Your task to perform on an android device: turn on translation in the chrome app Image 0: 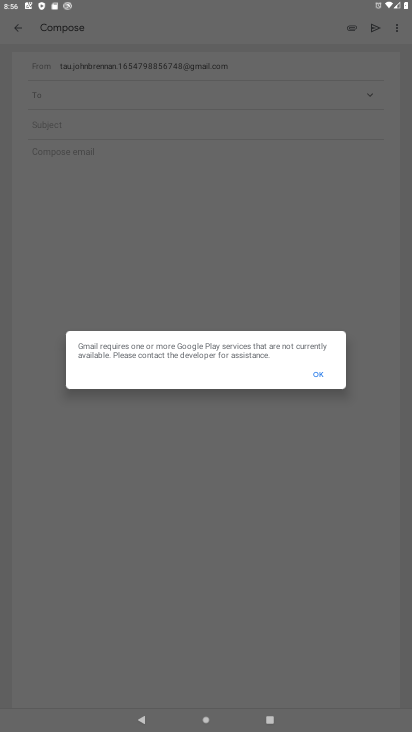
Step 0: press home button
Your task to perform on an android device: turn on translation in the chrome app Image 1: 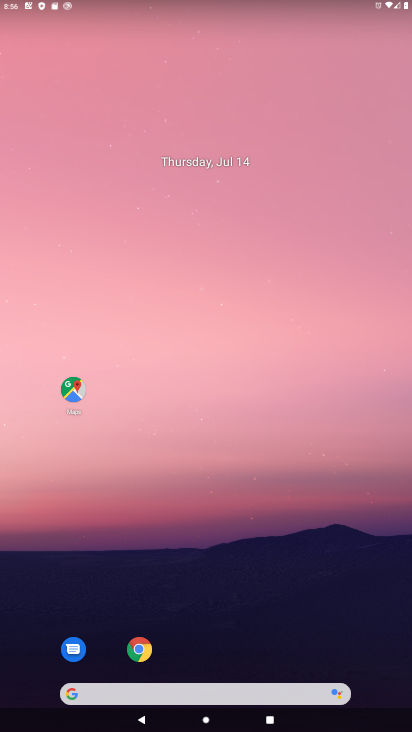
Step 1: click (143, 654)
Your task to perform on an android device: turn on translation in the chrome app Image 2: 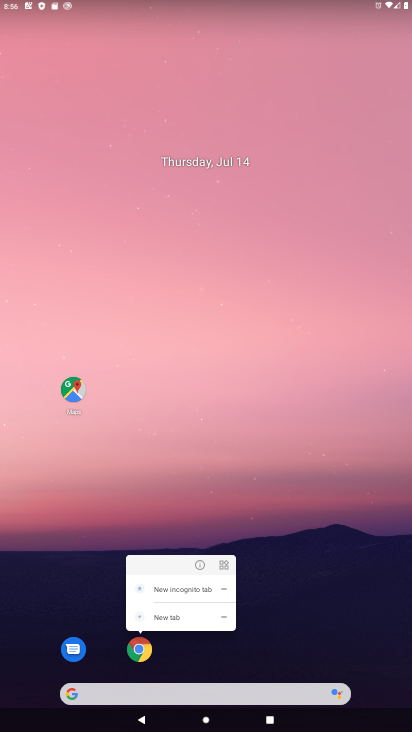
Step 2: click (143, 654)
Your task to perform on an android device: turn on translation in the chrome app Image 3: 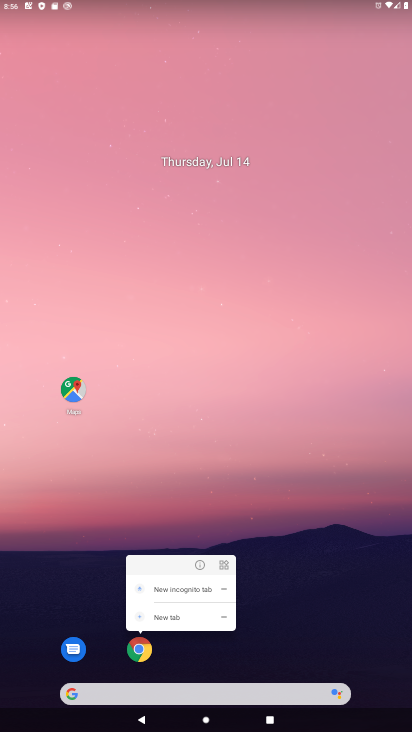
Step 3: click (143, 654)
Your task to perform on an android device: turn on translation in the chrome app Image 4: 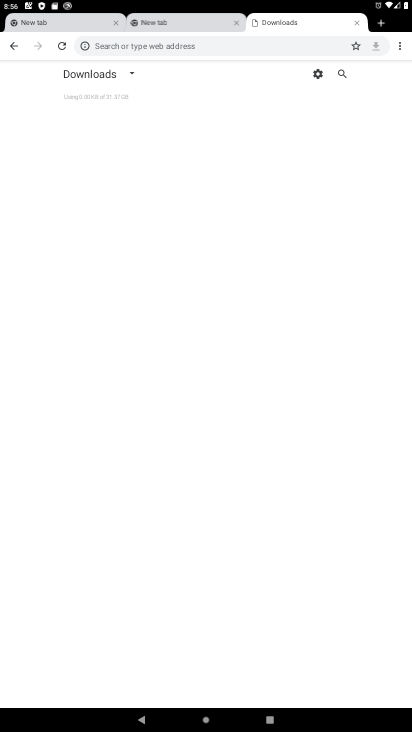
Step 4: click (395, 44)
Your task to perform on an android device: turn on translation in the chrome app Image 5: 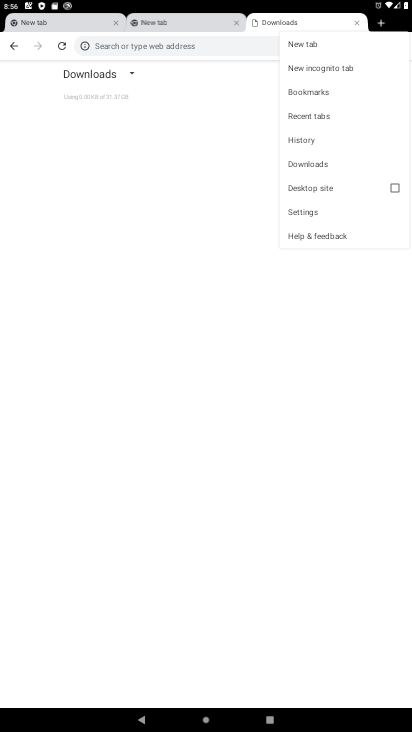
Step 5: click (298, 213)
Your task to perform on an android device: turn on translation in the chrome app Image 6: 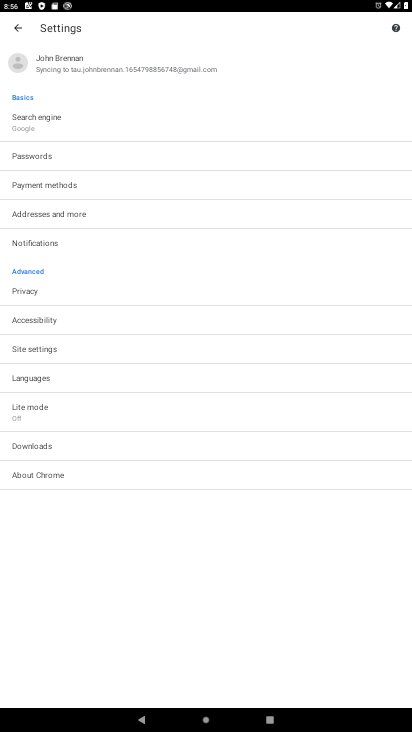
Step 6: click (41, 375)
Your task to perform on an android device: turn on translation in the chrome app Image 7: 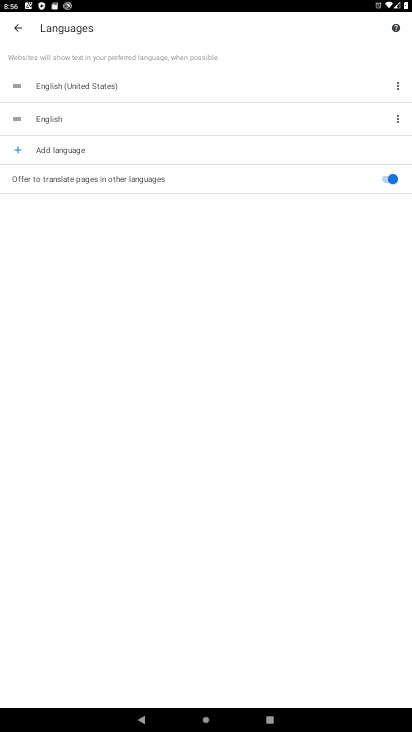
Step 7: task complete